Your task to perform on an android device: What's the weather? Image 0: 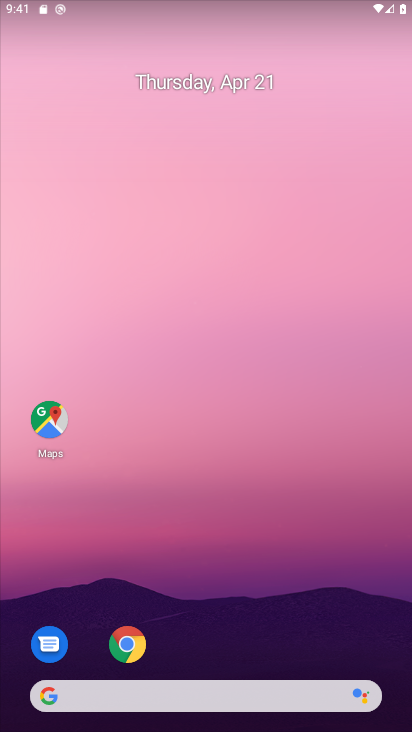
Step 0: click (129, 638)
Your task to perform on an android device: What's the weather? Image 1: 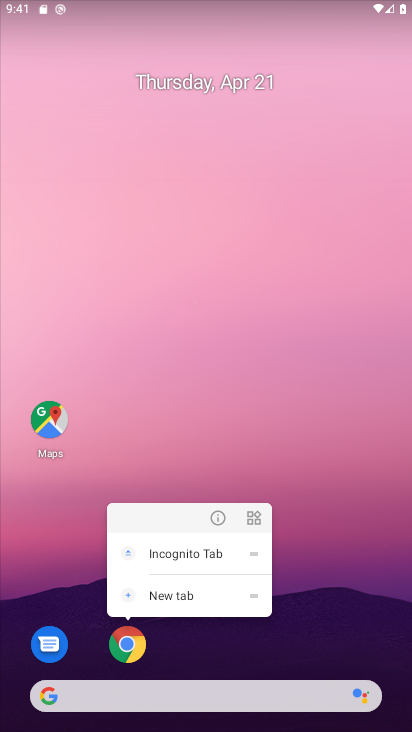
Step 1: click (126, 640)
Your task to perform on an android device: What's the weather? Image 2: 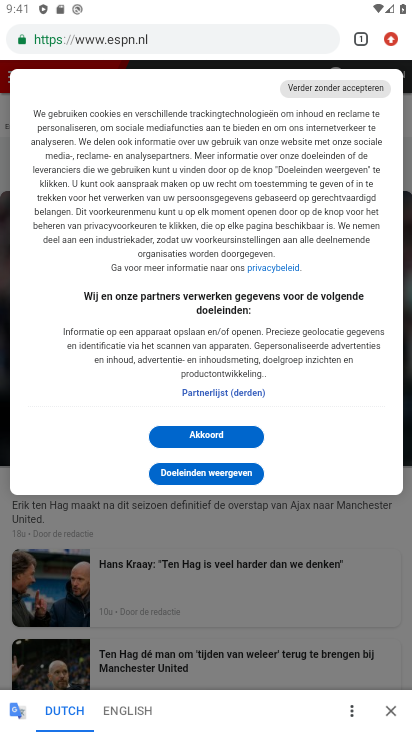
Step 2: click (267, 42)
Your task to perform on an android device: What's the weather? Image 3: 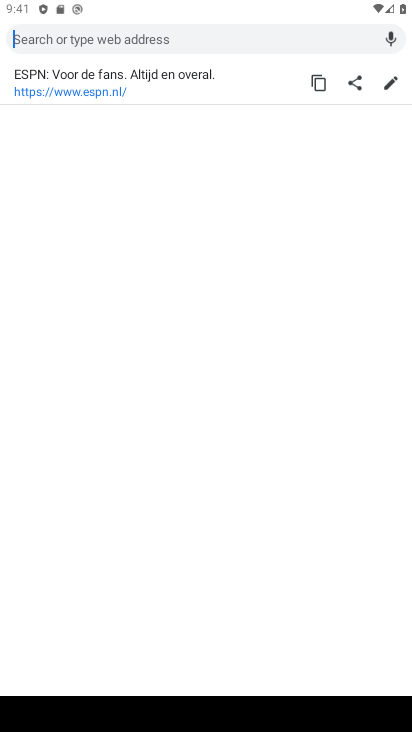
Step 3: type "whats the weather"
Your task to perform on an android device: What's the weather? Image 4: 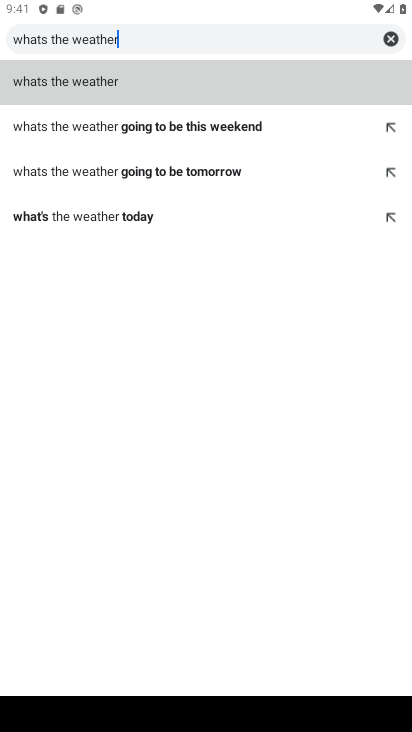
Step 4: click (90, 77)
Your task to perform on an android device: What's the weather? Image 5: 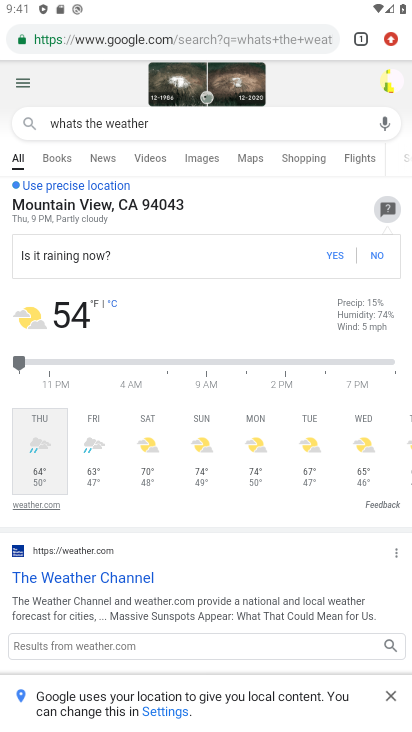
Step 5: task complete